Your task to perform on an android device: Go to wifi settings Image 0: 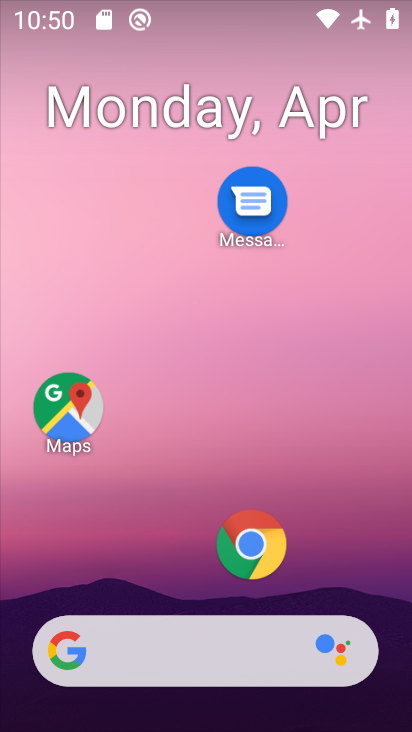
Step 0: drag from (184, 16) to (210, 505)
Your task to perform on an android device: Go to wifi settings Image 1: 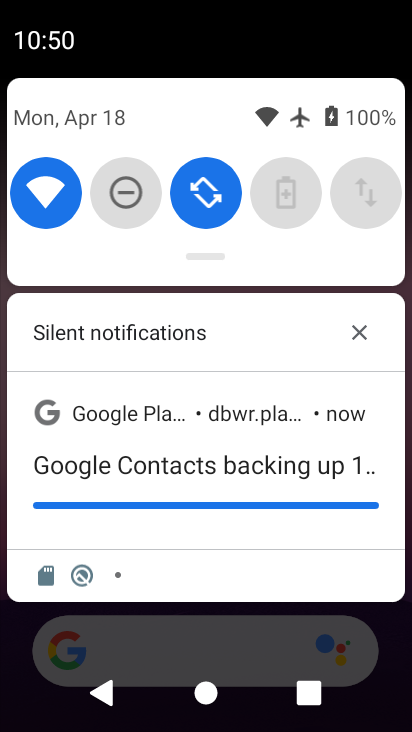
Step 1: drag from (187, 631) to (245, 189)
Your task to perform on an android device: Go to wifi settings Image 2: 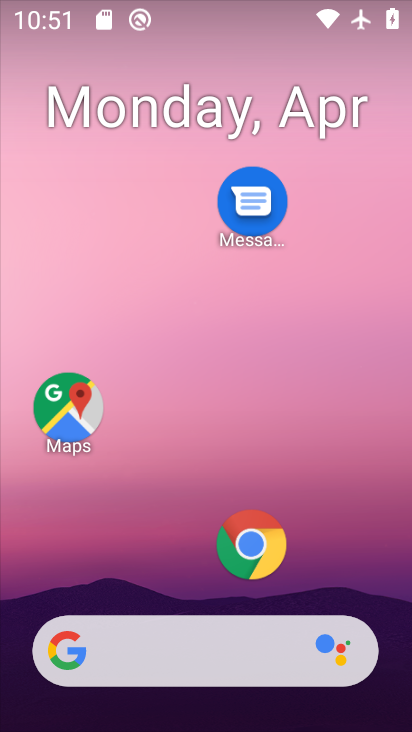
Step 2: drag from (165, 532) to (203, 45)
Your task to perform on an android device: Go to wifi settings Image 3: 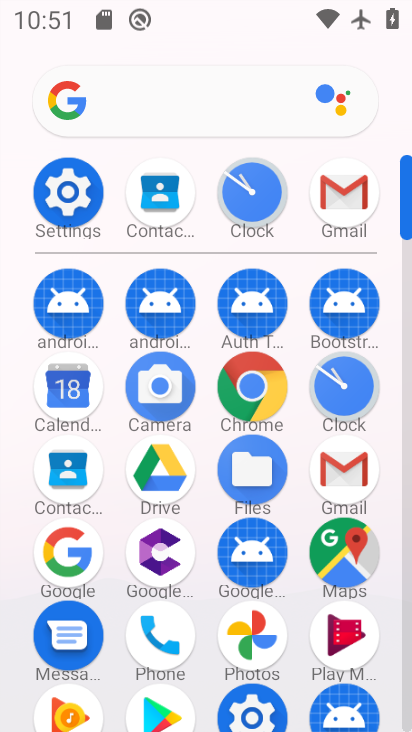
Step 3: click (67, 187)
Your task to perform on an android device: Go to wifi settings Image 4: 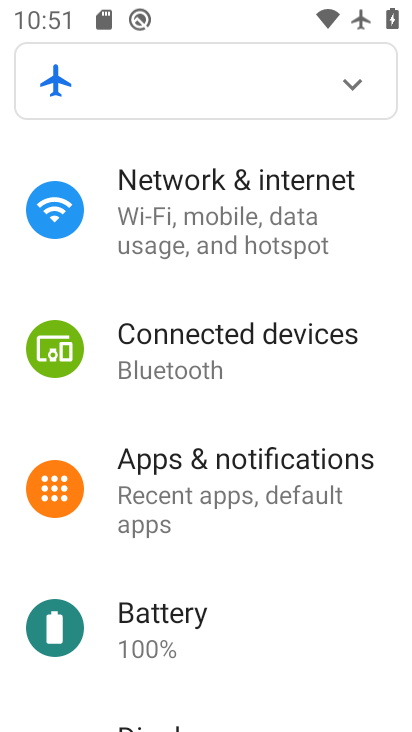
Step 4: click (201, 217)
Your task to perform on an android device: Go to wifi settings Image 5: 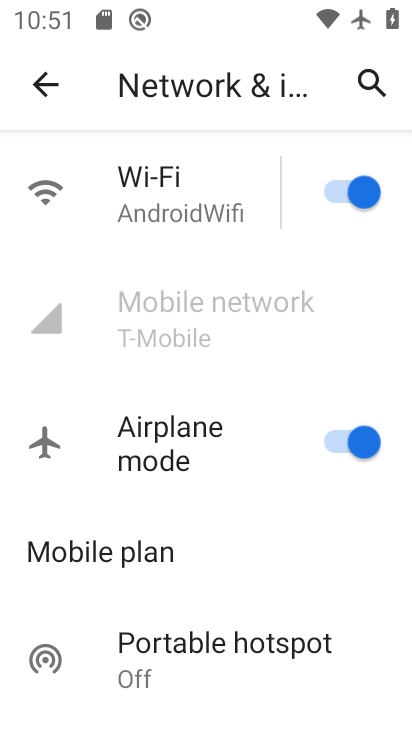
Step 5: click (204, 179)
Your task to perform on an android device: Go to wifi settings Image 6: 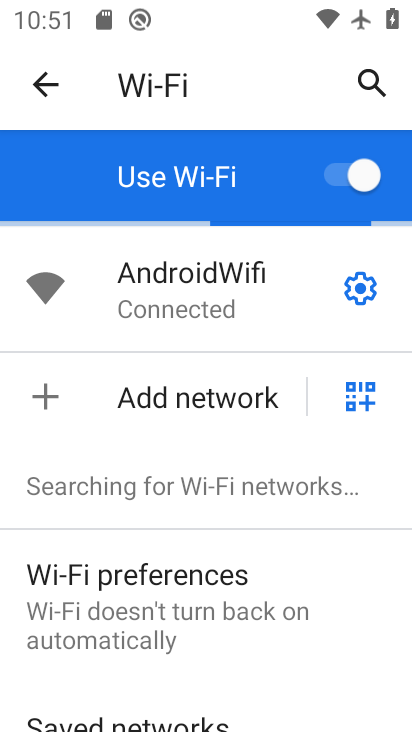
Step 6: task complete